Your task to perform on an android device: turn smart compose on in the gmail app Image 0: 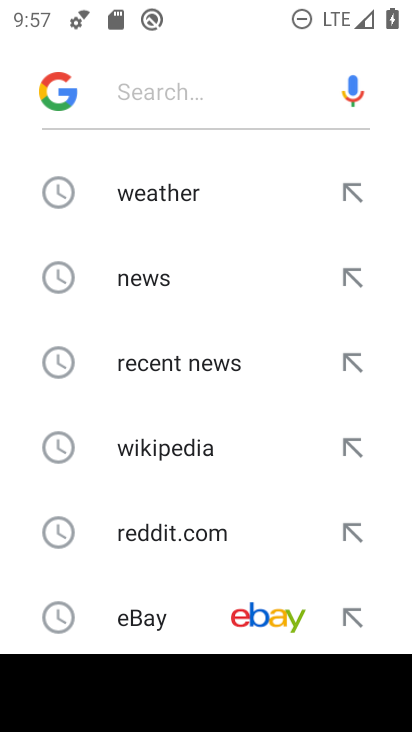
Step 0: press home button
Your task to perform on an android device: turn smart compose on in the gmail app Image 1: 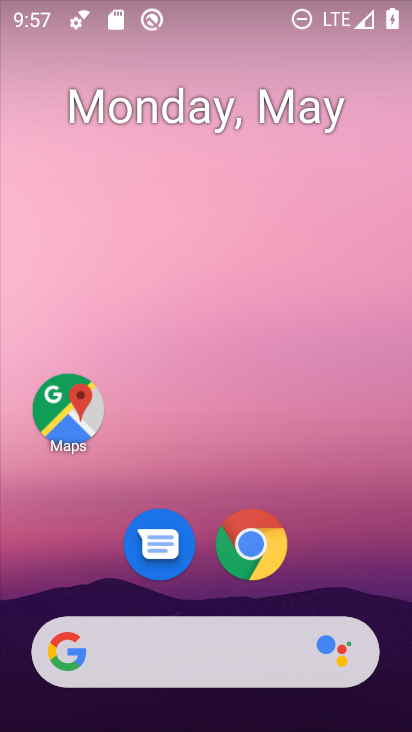
Step 1: drag from (327, 569) to (342, 180)
Your task to perform on an android device: turn smart compose on in the gmail app Image 2: 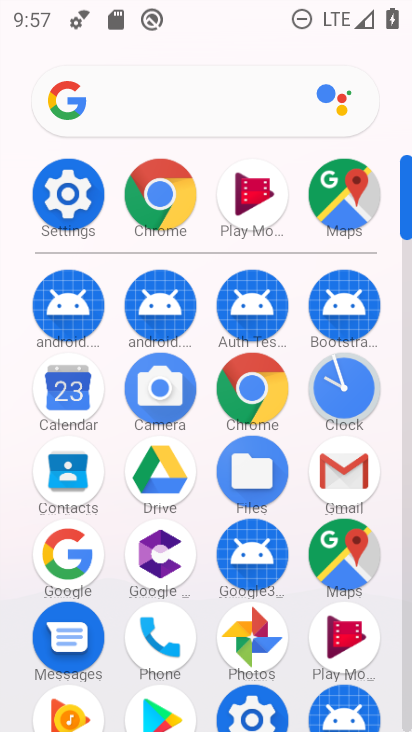
Step 2: click (322, 456)
Your task to perform on an android device: turn smart compose on in the gmail app Image 3: 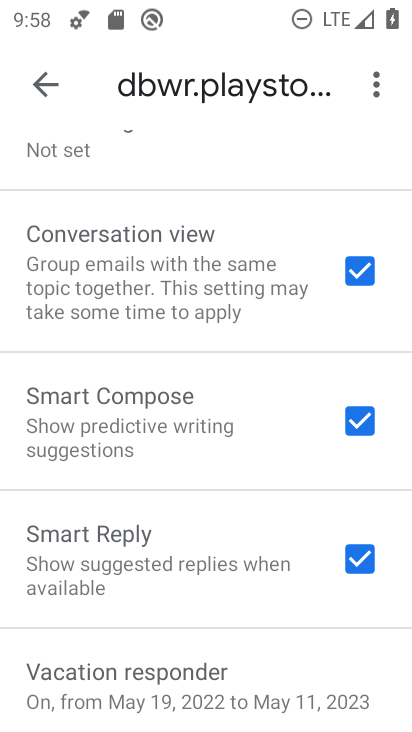
Step 3: task complete